Your task to perform on an android device: Go to Google maps Image 0: 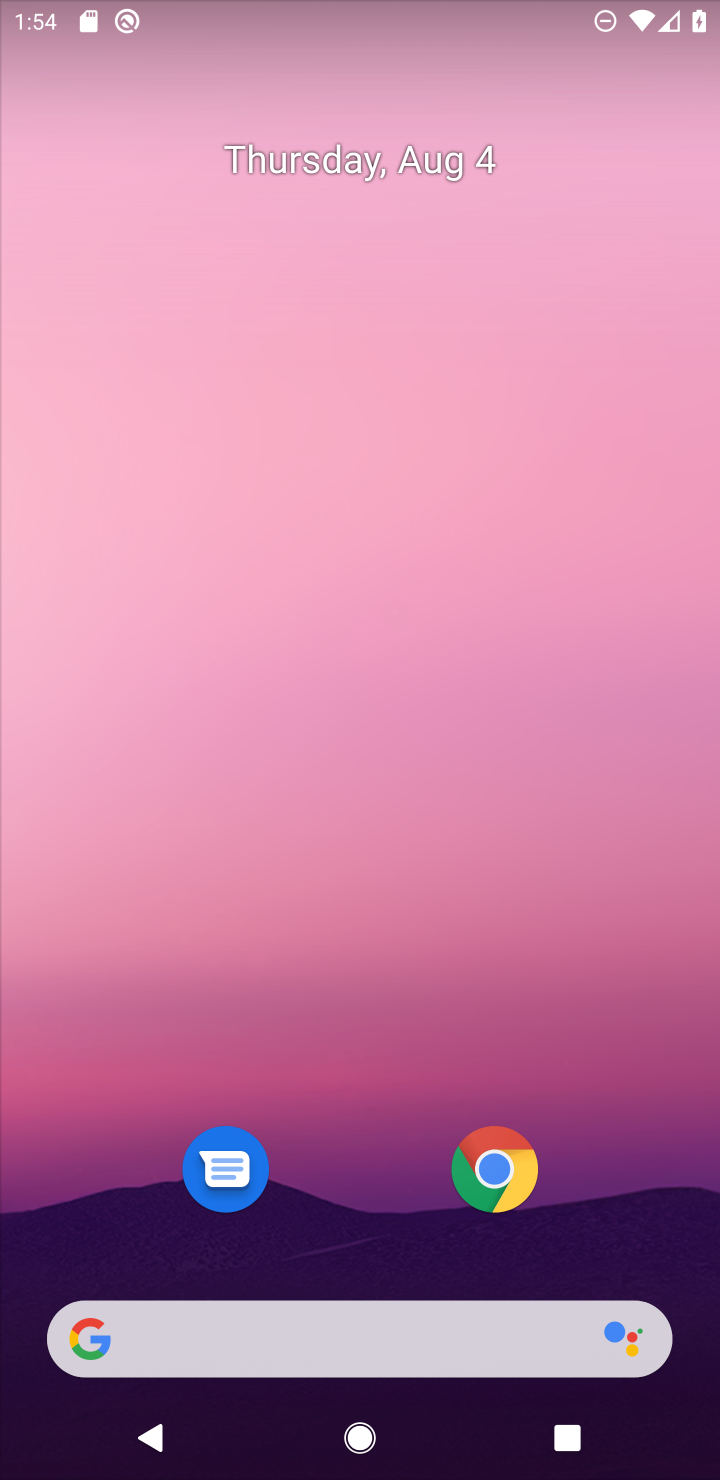
Step 0: drag from (412, 1135) to (353, 5)
Your task to perform on an android device: Go to Google maps Image 1: 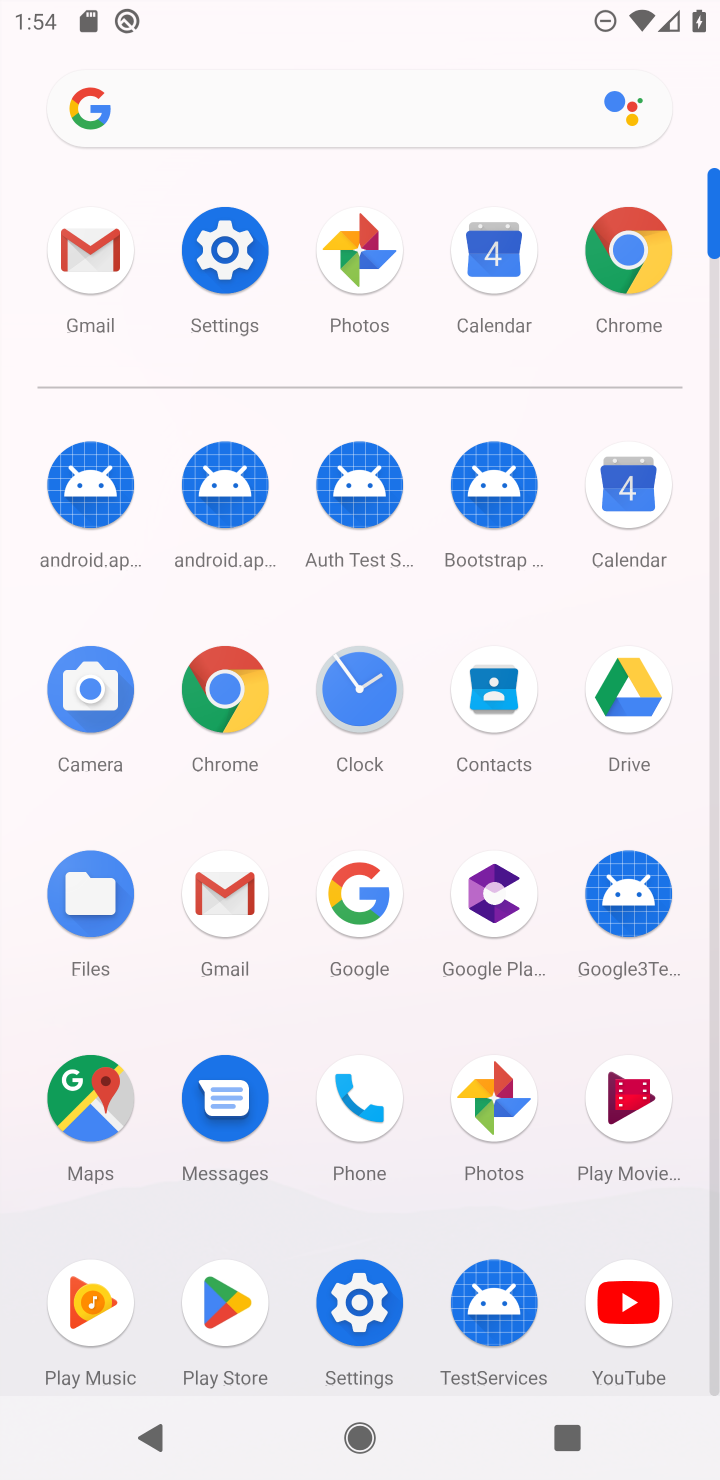
Step 1: click (90, 1110)
Your task to perform on an android device: Go to Google maps Image 2: 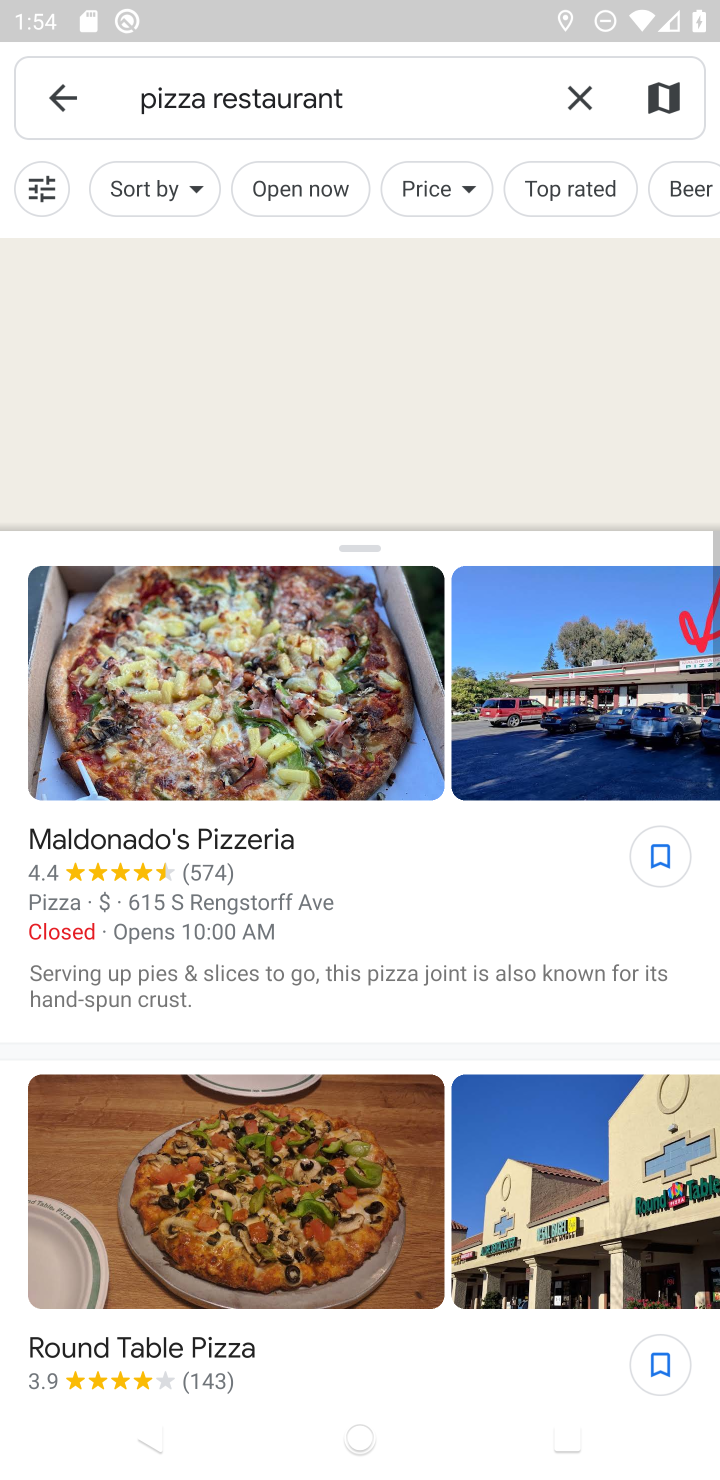
Step 2: task complete